Your task to perform on an android device: check battery use Image 0: 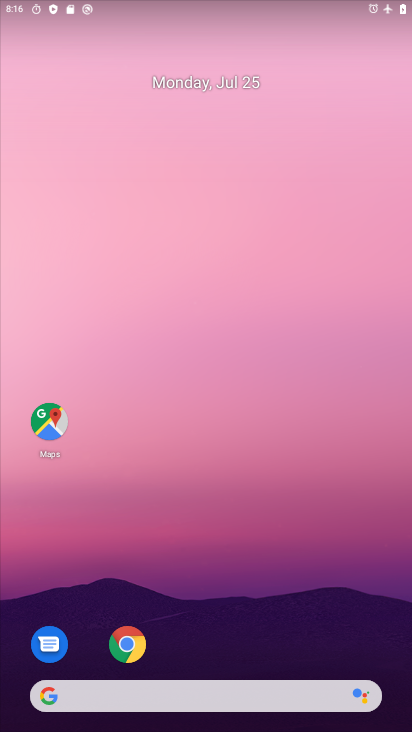
Step 0: drag from (182, 577) to (182, 365)
Your task to perform on an android device: check battery use Image 1: 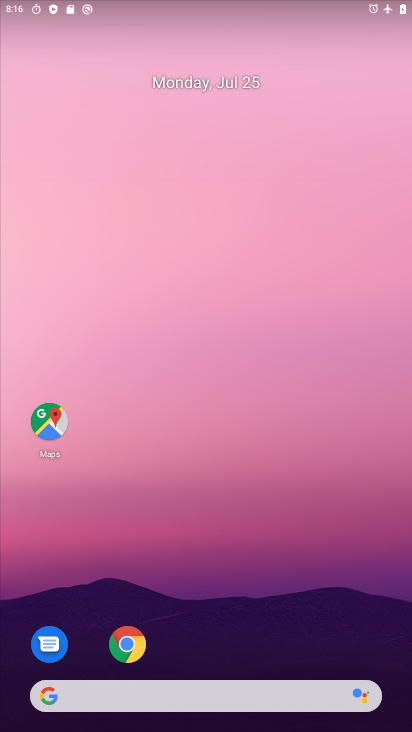
Step 1: drag from (199, 549) to (135, 51)
Your task to perform on an android device: check battery use Image 2: 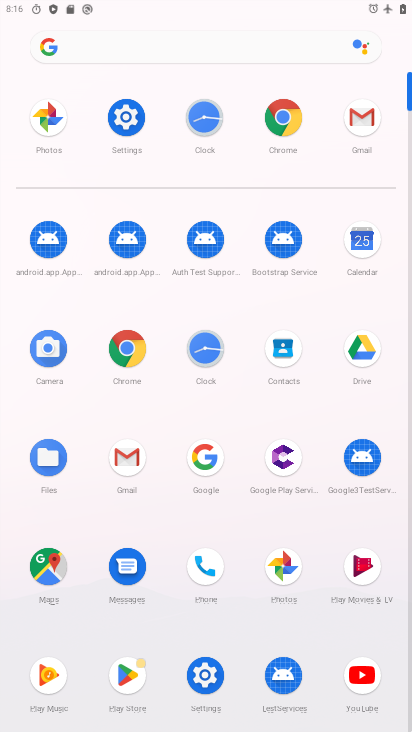
Step 2: click (132, 114)
Your task to perform on an android device: check battery use Image 3: 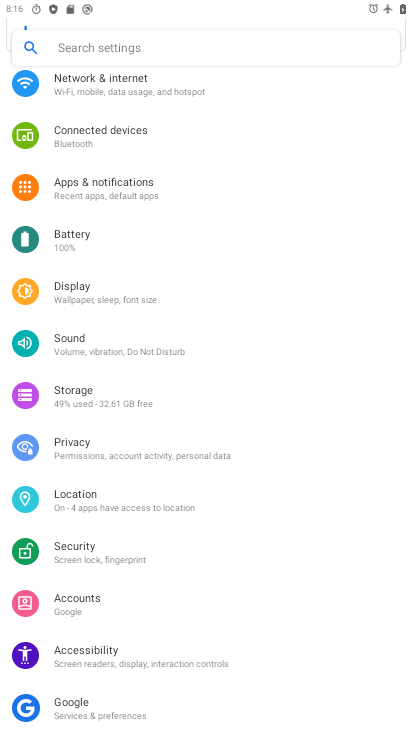
Step 3: click (74, 242)
Your task to perform on an android device: check battery use Image 4: 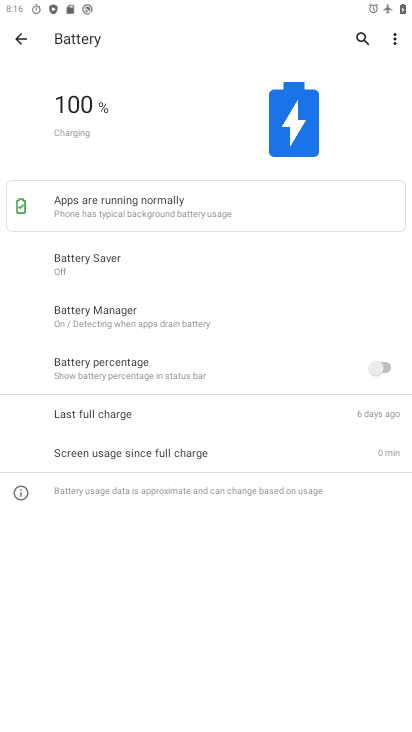
Step 4: task complete